Your task to perform on an android device: move an email to a new category in the gmail app Image 0: 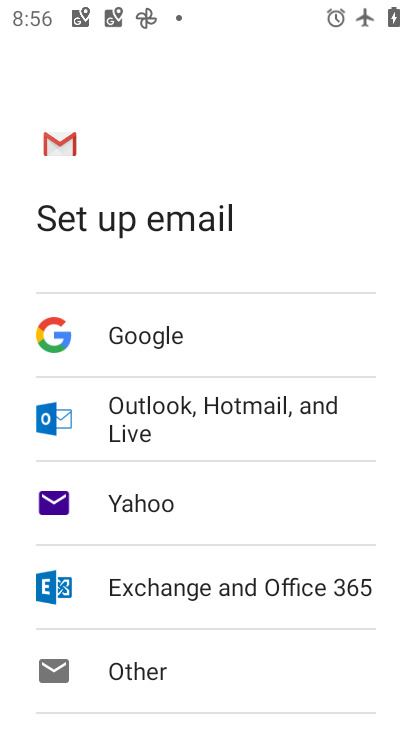
Step 0: press home button
Your task to perform on an android device: move an email to a new category in the gmail app Image 1: 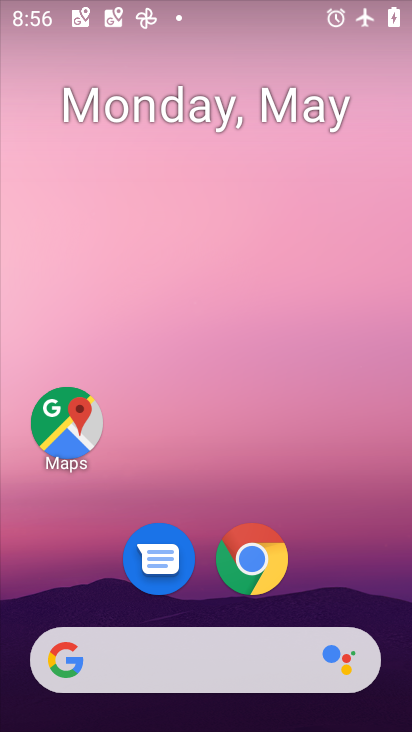
Step 1: drag from (393, 636) to (324, 99)
Your task to perform on an android device: move an email to a new category in the gmail app Image 2: 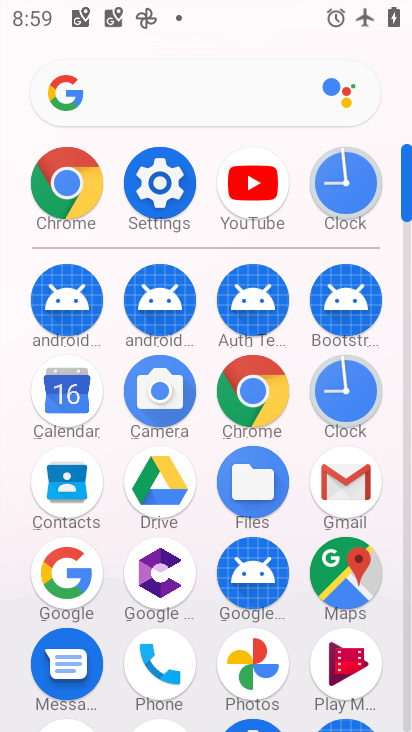
Step 2: click (356, 460)
Your task to perform on an android device: move an email to a new category in the gmail app Image 3: 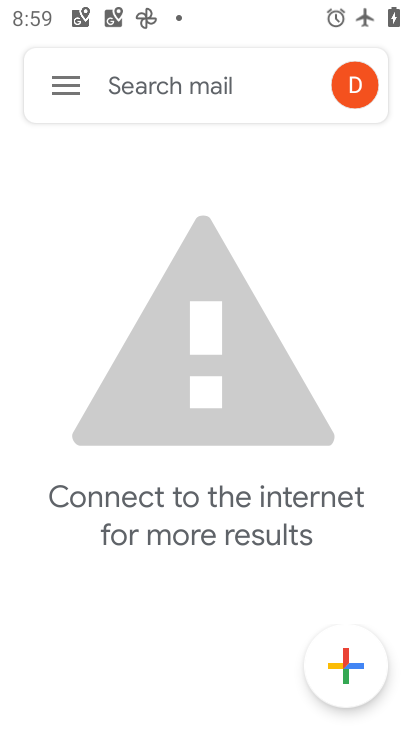
Step 3: task complete